Your task to perform on an android device: turn on data saver in the chrome app Image 0: 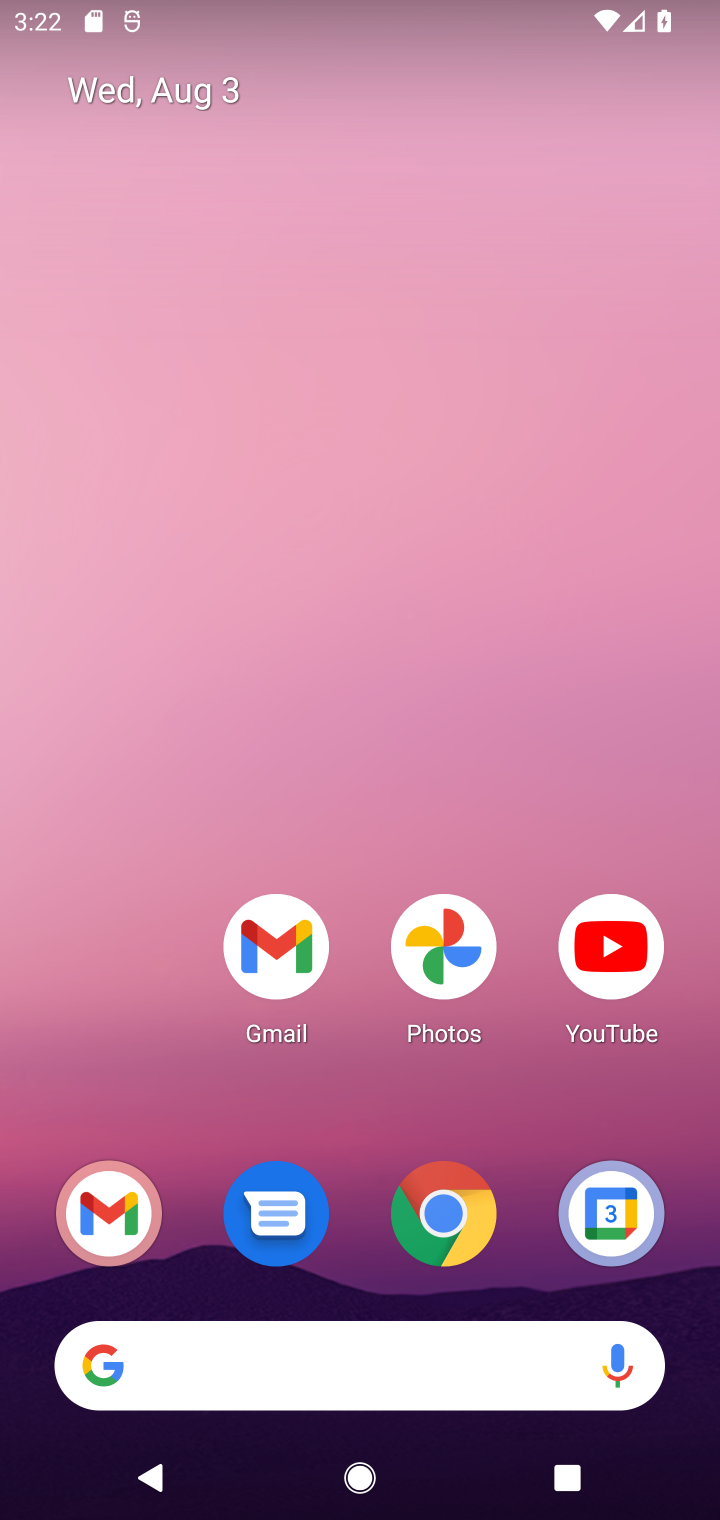
Step 0: drag from (293, 1215) to (328, 472)
Your task to perform on an android device: turn on data saver in the chrome app Image 1: 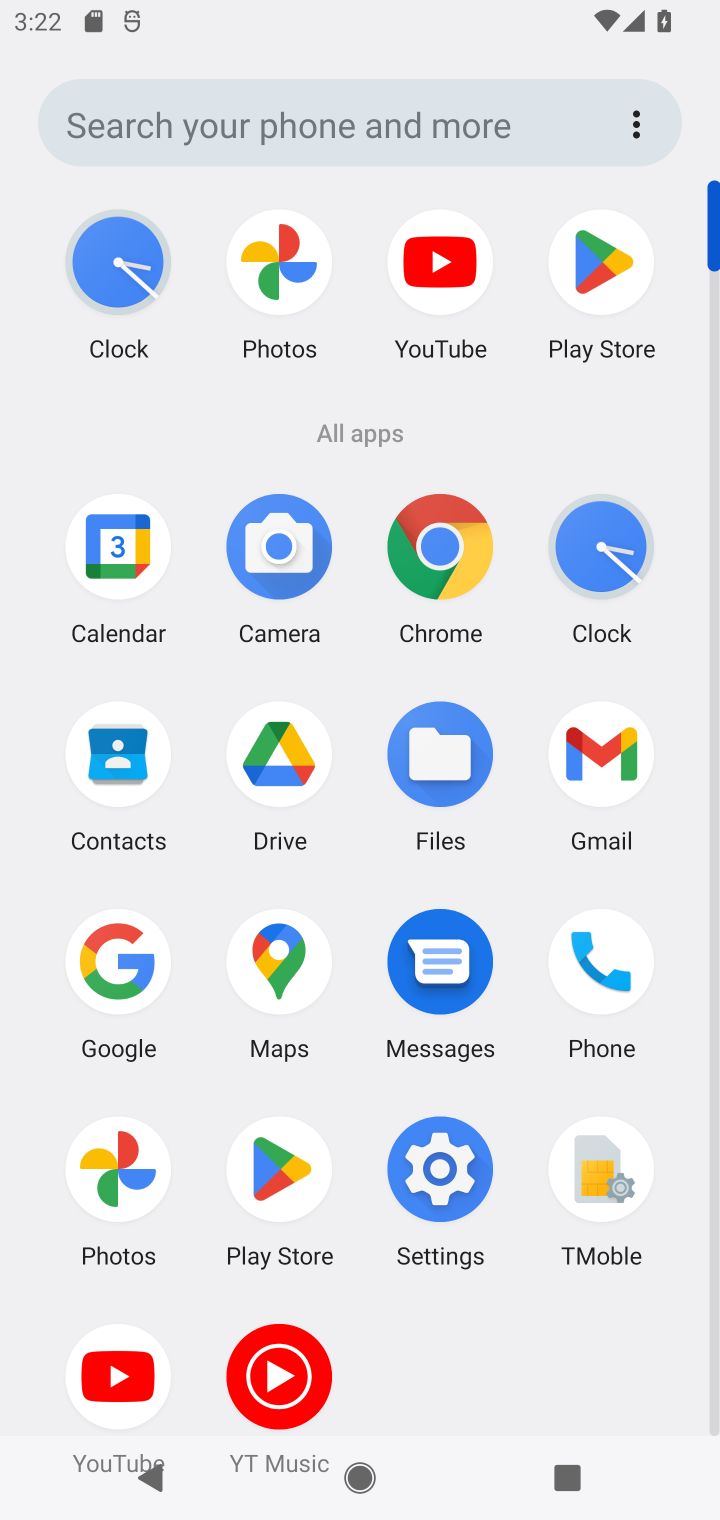
Step 1: click (423, 554)
Your task to perform on an android device: turn on data saver in the chrome app Image 2: 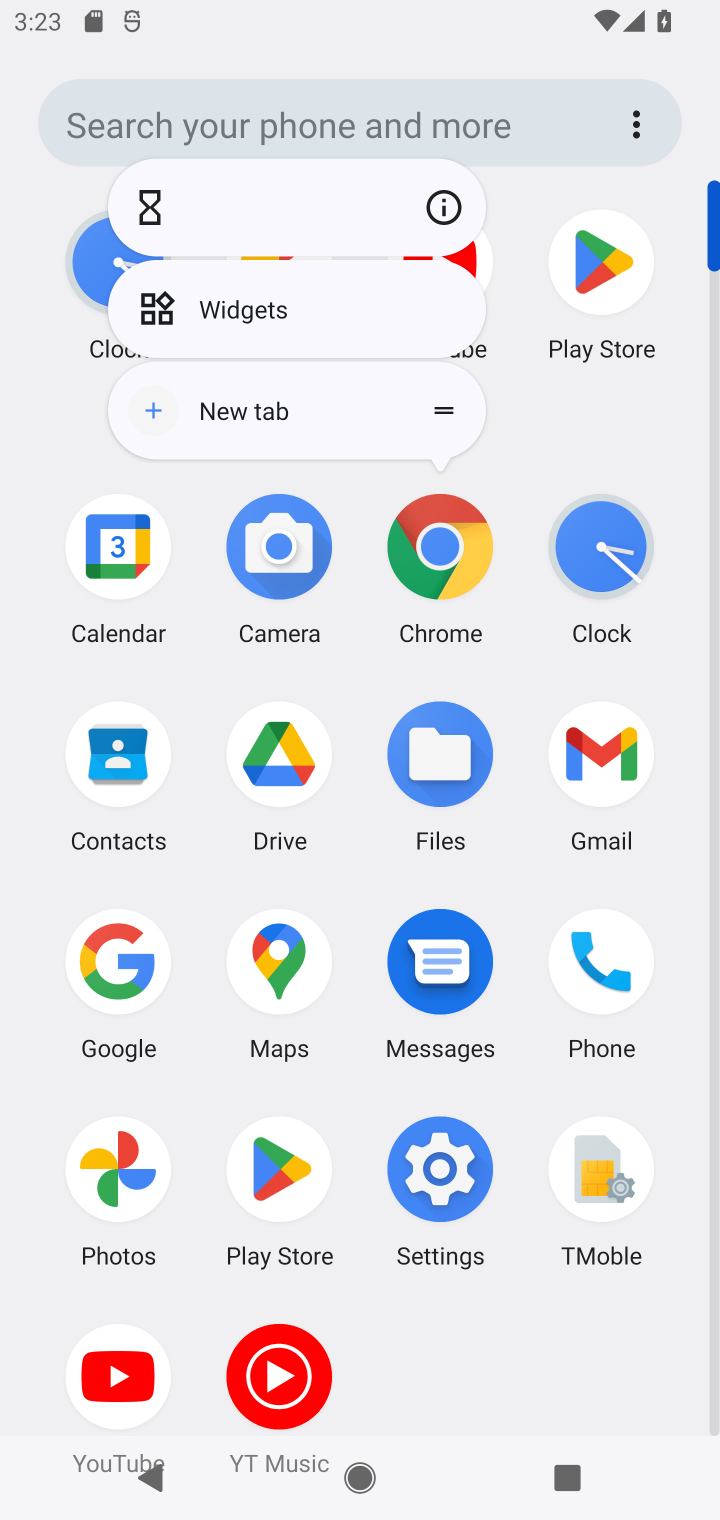
Step 2: click (423, 558)
Your task to perform on an android device: turn on data saver in the chrome app Image 3: 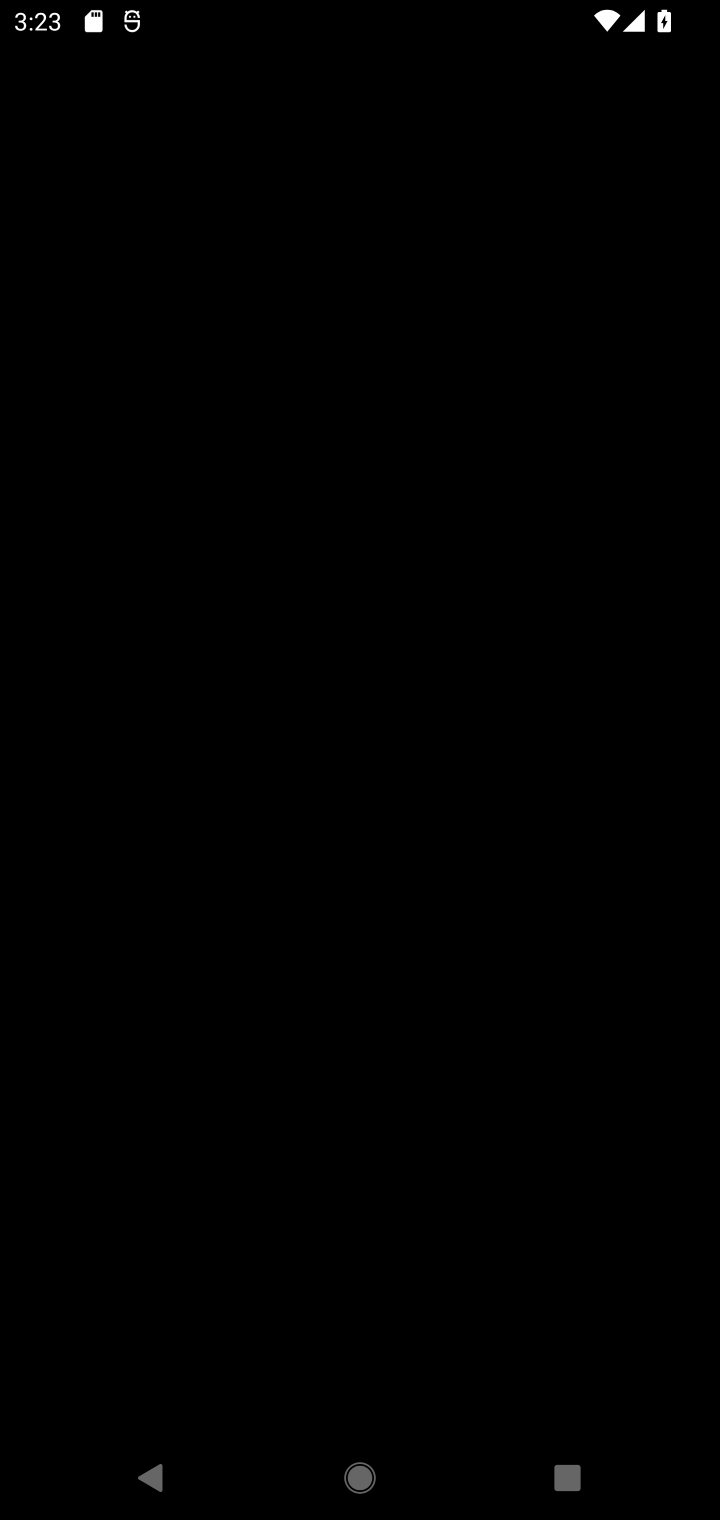
Step 3: task complete